Your task to perform on an android device: turn off picture-in-picture Image 0: 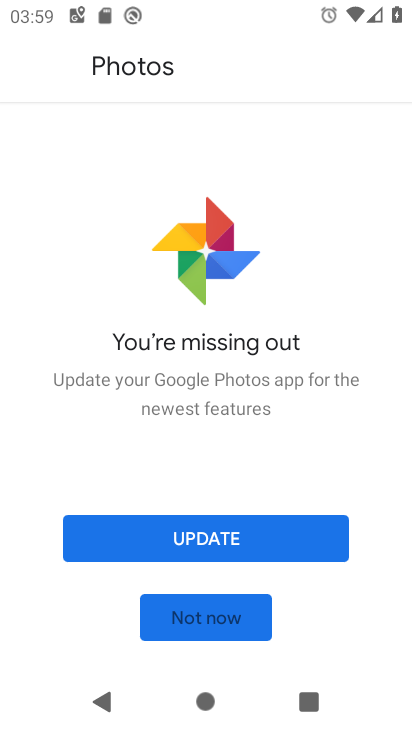
Step 0: press home button
Your task to perform on an android device: turn off picture-in-picture Image 1: 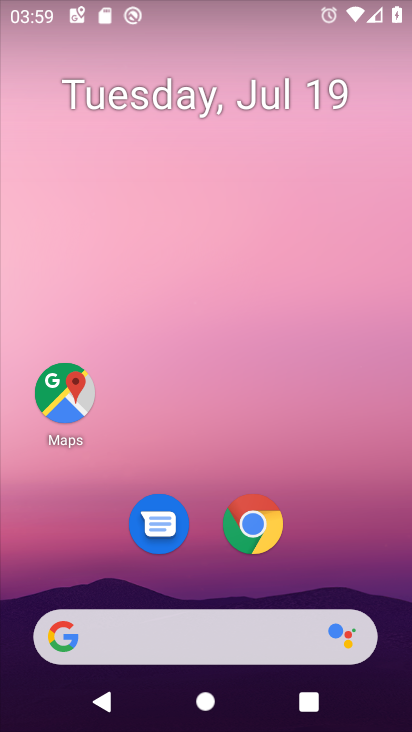
Step 1: click (260, 525)
Your task to perform on an android device: turn off picture-in-picture Image 2: 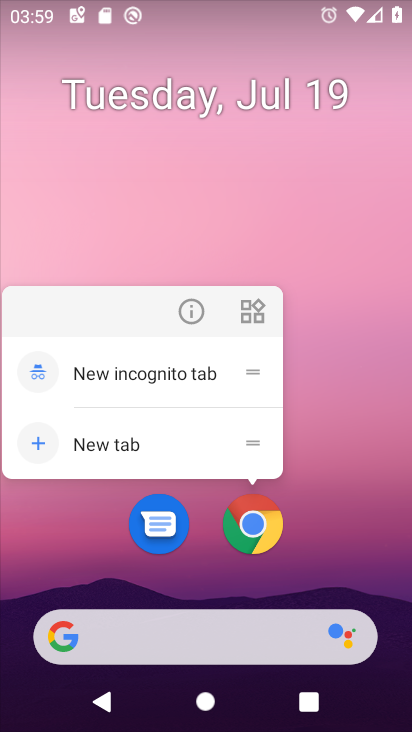
Step 2: click (196, 311)
Your task to perform on an android device: turn off picture-in-picture Image 3: 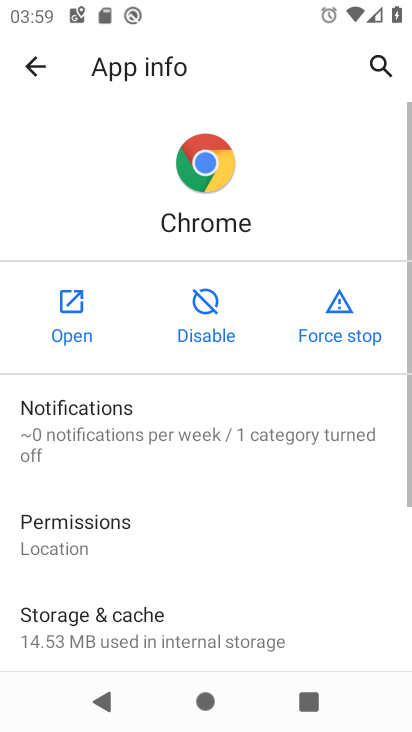
Step 3: drag from (216, 587) to (271, 5)
Your task to perform on an android device: turn off picture-in-picture Image 4: 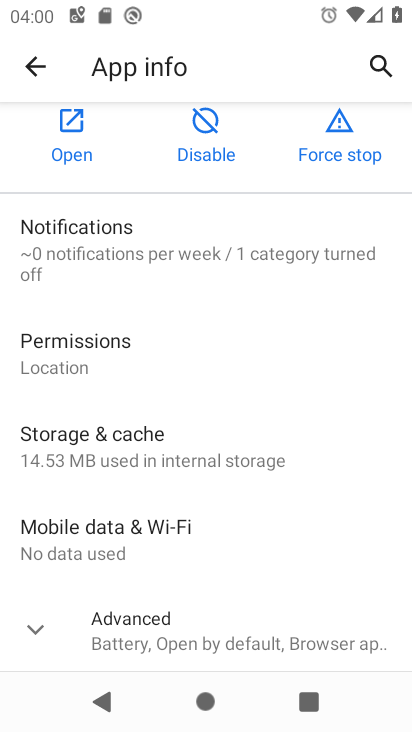
Step 4: click (35, 620)
Your task to perform on an android device: turn off picture-in-picture Image 5: 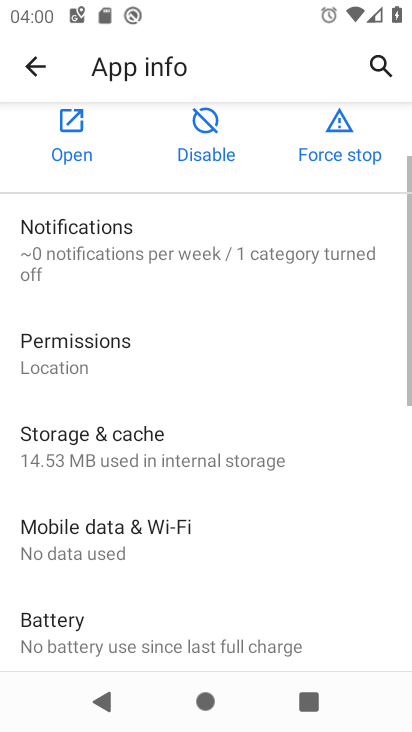
Step 5: drag from (246, 537) to (328, 57)
Your task to perform on an android device: turn off picture-in-picture Image 6: 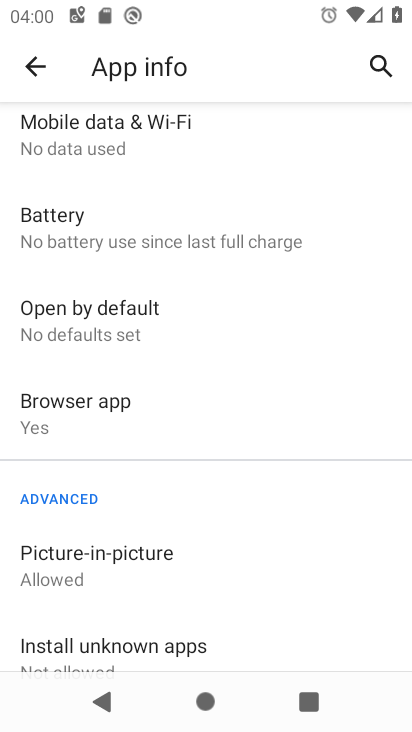
Step 6: click (124, 550)
Your task to perform on an android device: turn off picture-in-picture Image 7: 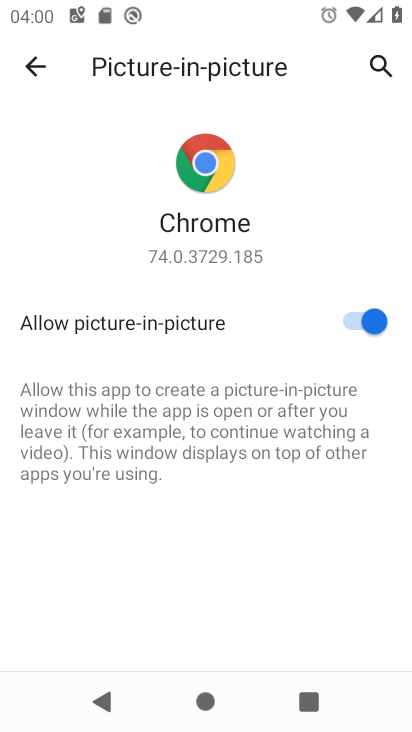
Step 7: click (358, 318)
Your task to perform on an android device: turn off picture-in-picture Image 8: 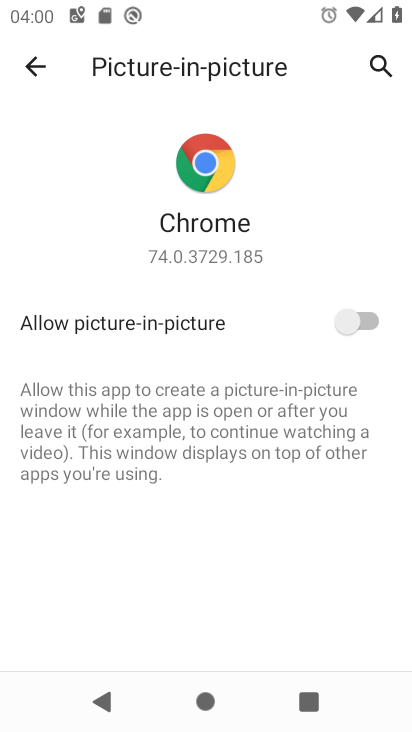
Step 8: task complete